Your task to perform on an android device: Go to battery settings Image 0: 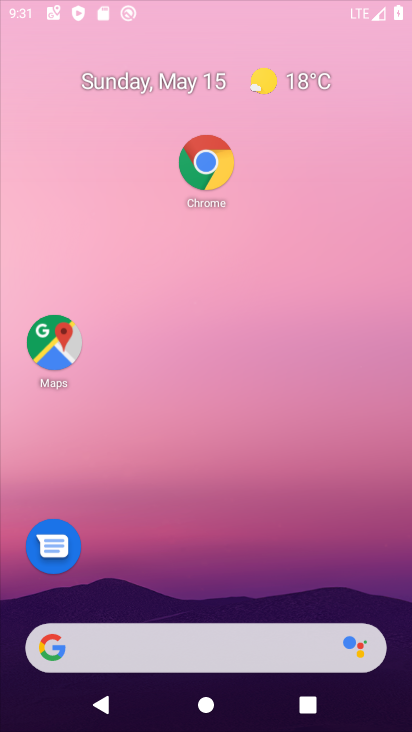
Step 0: drag from (238, 482) to (228, 371)
Your task to perform on an android device: Go to battery settings Image 1: 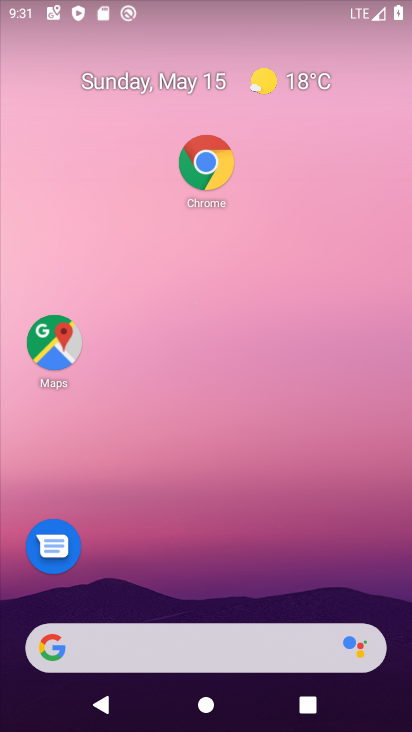
Step 1: drag from (257, 552) to (257, 345)
Your task to perform on an android device: Go to battery settings Image 2: 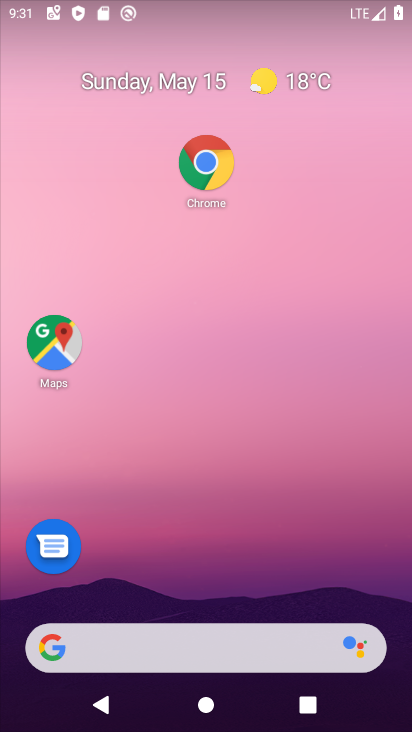
Step 2: drag from (238, 583) to (222, 237)
Your task to perform on an android device: Go to battery settings Image 3: 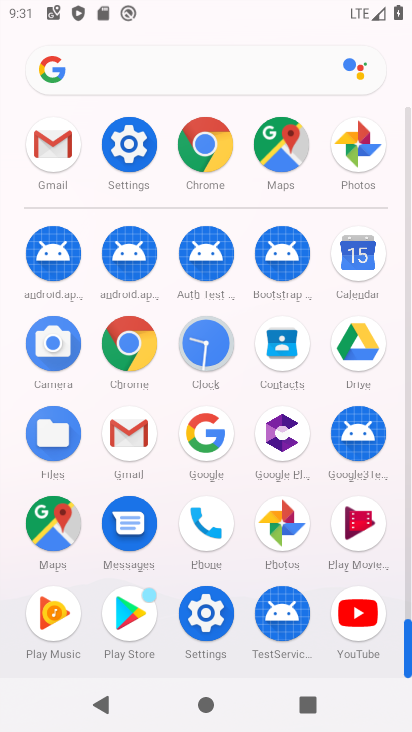
Step 3: click (114, 158)
Your task to perform on an android device: Go to battery settings Image 4: 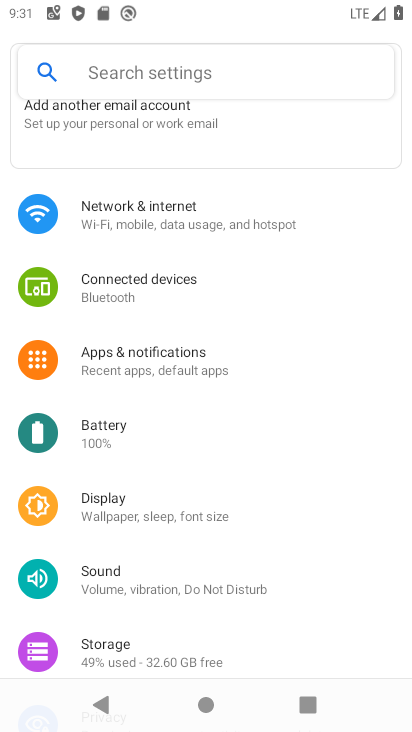
Step 4: click (137, 435)
Your task to perform on an android device: Go to battery settings Image 5: 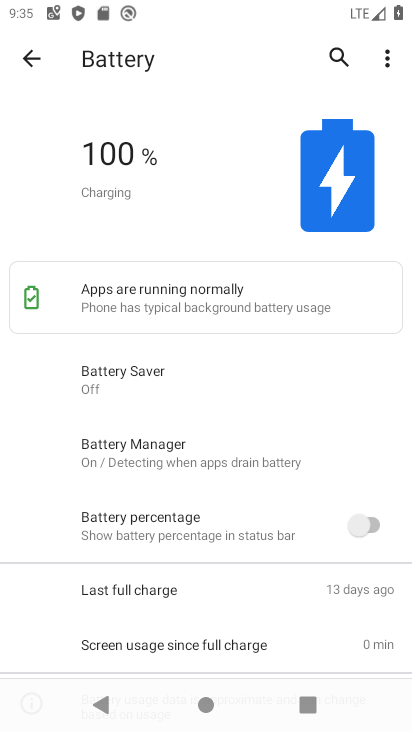
Step 5: task complete